Your task to perform on an android device: open sync settings in chrome Image 0: 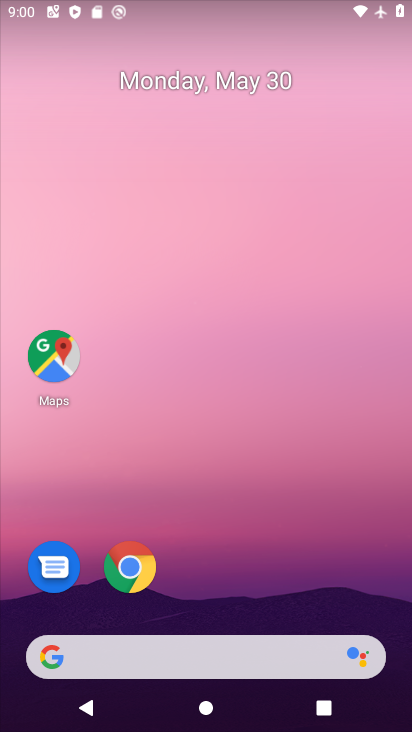
Step 0: drag from (222, 608) to (220, 3)
Your task to perform on an android device: open sync settings in chrome Image 1: 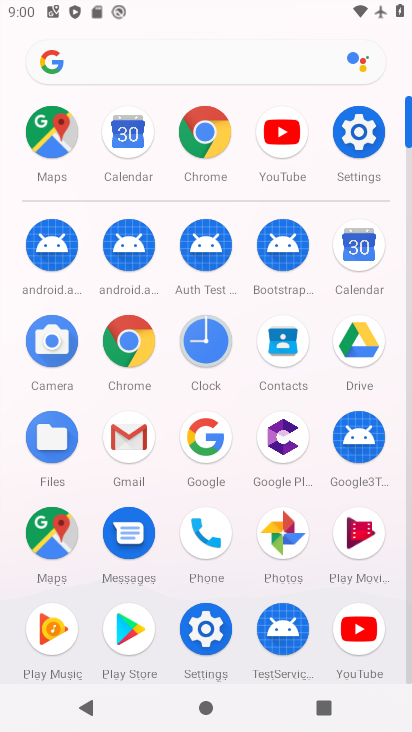
Step 1: click (212, 140)
Your task to perform on an android device: open sync settings in chrome Image 2: 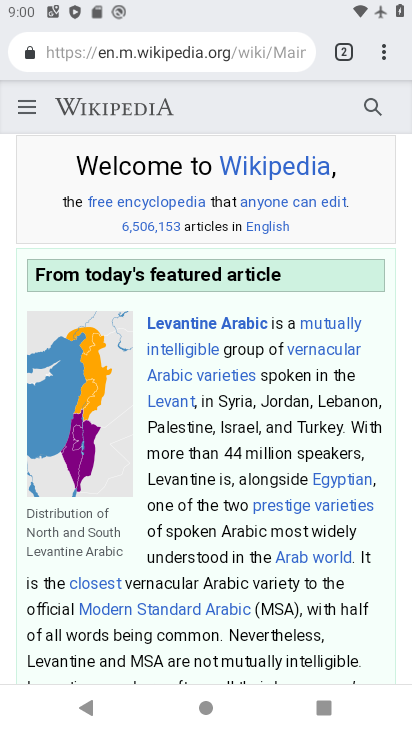
Step 2: click (381, 61)
Your task to perform on an android device: open sync settings in chrome Image 3: 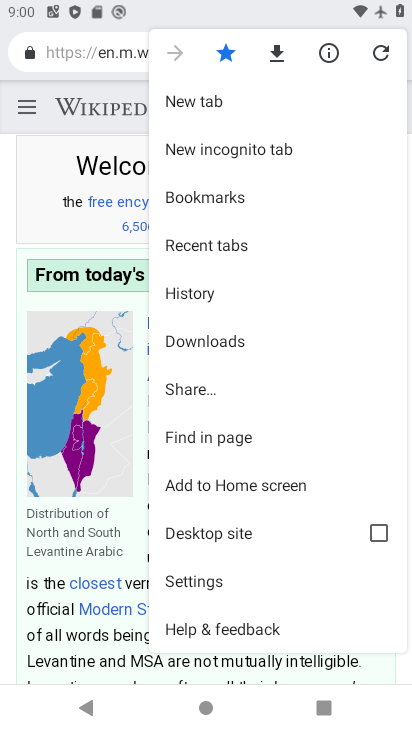
Step 3: drag from (234, 570) to (204, 346)
Your task to perform on an android device: open sync settings in chrome Image 4: 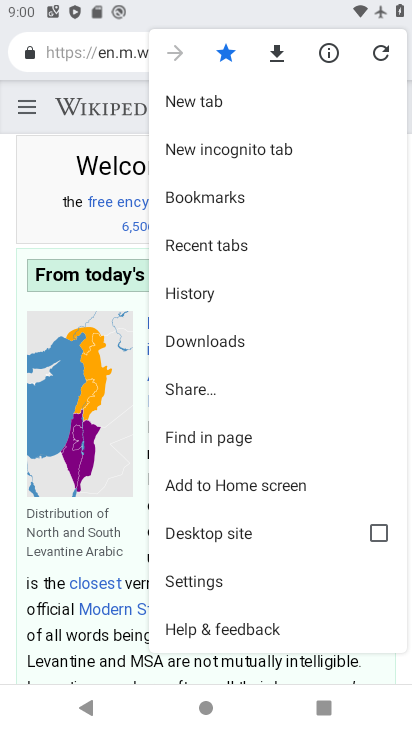
Step 4: click (206, 573)
Your task to perform on an android device: open sync settings in chrome Image 5: 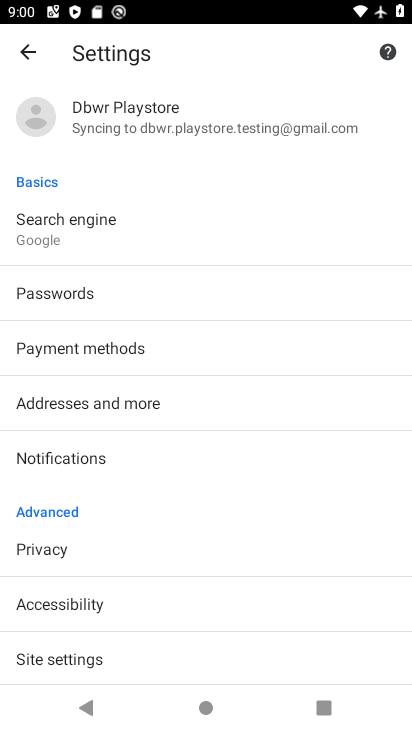
Step 5: click (185, 116)
Your task to perform on an android device: open sync settings in chrome Image 6: 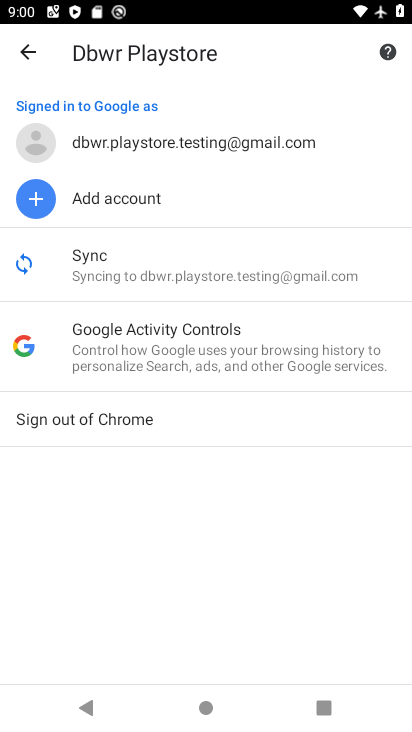
Step 6: click (173, 264)
Your task to perform on an android device: open sync settings in chrome Image 7: 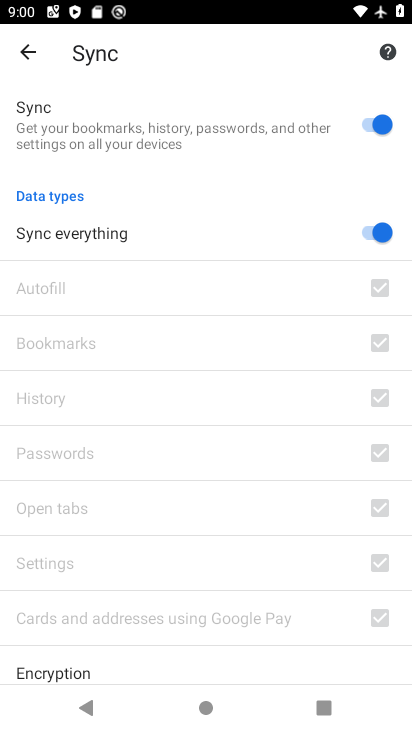
Step 7: task complete